Your task to perform on an android device: Go to location settings Image 0: 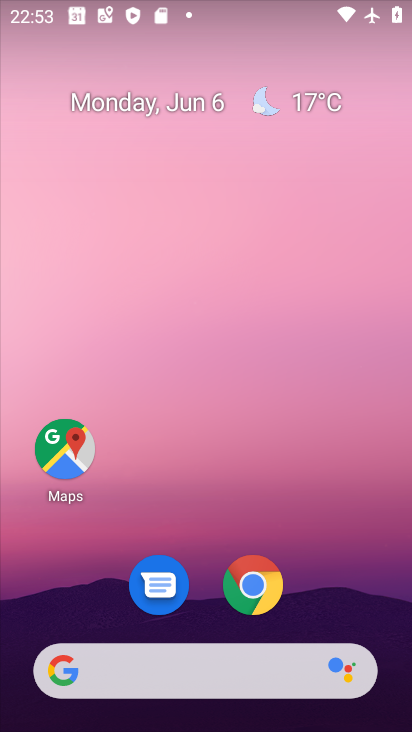
Step 0: drag from (240, 497) to (259, 22)
Your task to perform on an android device: Go to location settings Image 1: 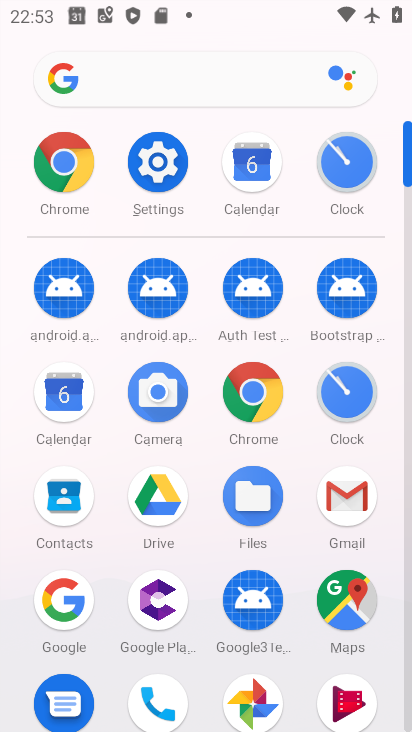
Step 1: click (173, 162)
Your task to perform on an android device: Go to location settings Image 2: 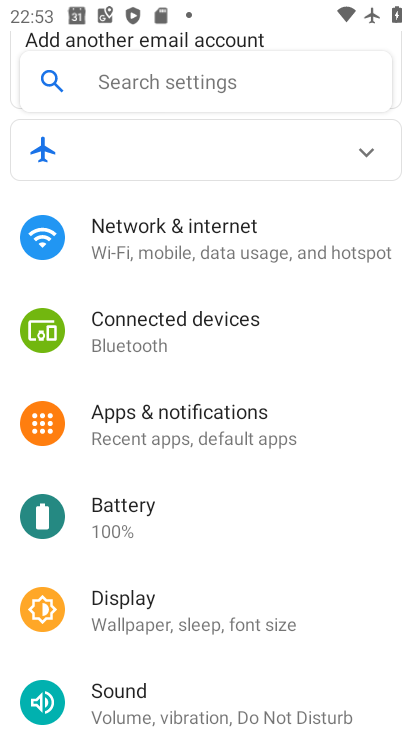
Step 2: drag from (224, 538) to (226, 208)
Your task to perform on an android device: Go to location settings Image 3: 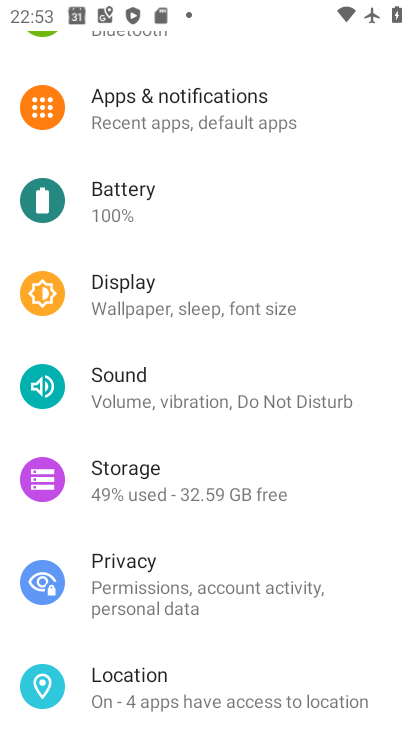
Step 3: click (203, 680)
Your task to perform on an android device: Go to location settings Image 4: 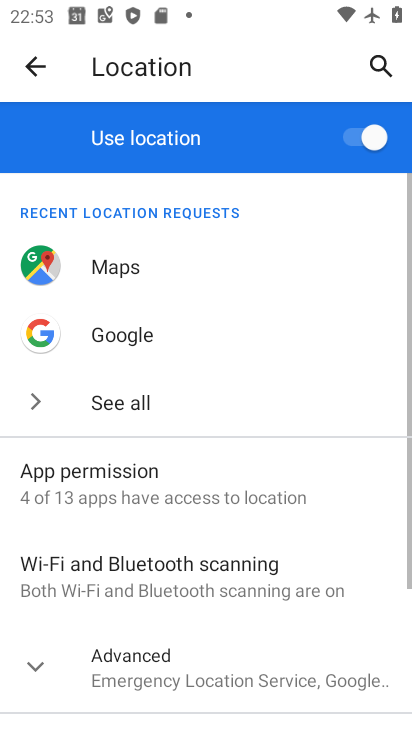
Step 4: task complete